Your task to perform on an android device: toggle location history Image 0: 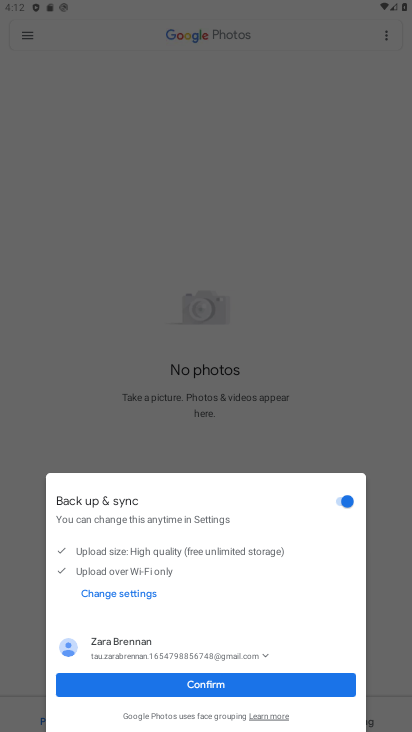
Step 0: press home button
Your task to perform on an android device: toggle location history Image 1: 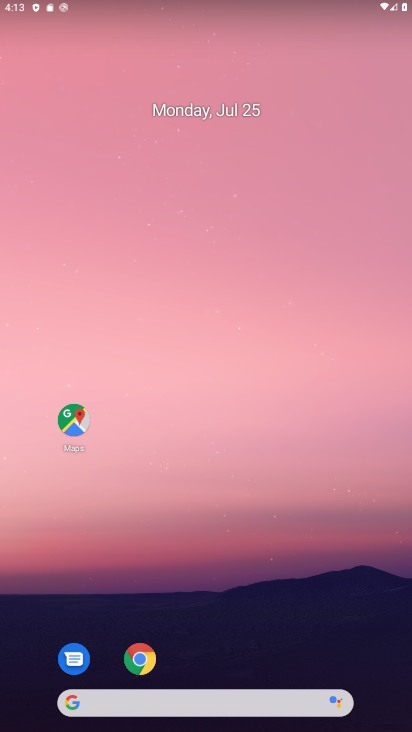
Step 1: drag from (182, 664) to (252, 8)
Your task to perform on an android device: toggle location history Image 2: 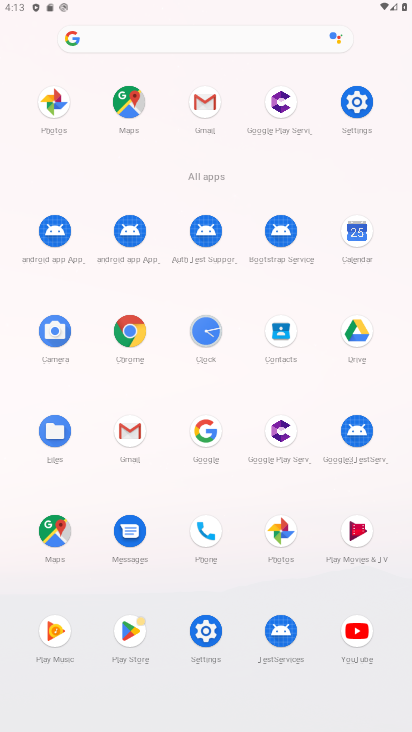
Step 2: click (357, 107)
Your task to perform on an android device: toggle location history Image 3: 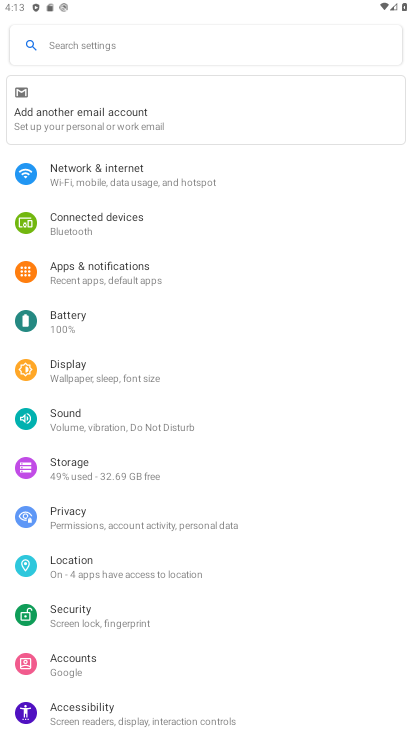
Step 3: click (96, 564)
Your task to perform on an android device: toggle location history Image 4: 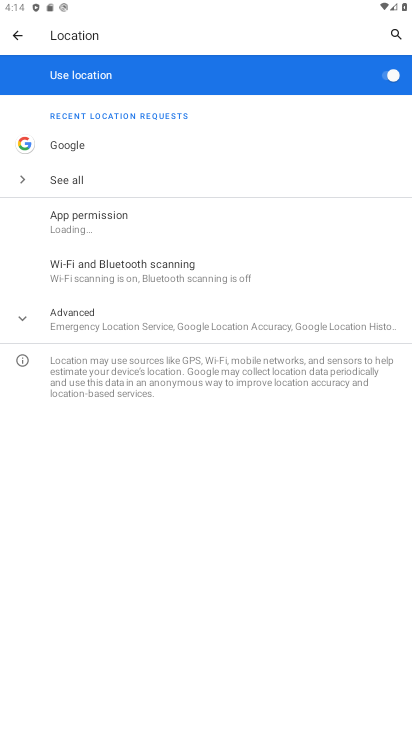
Step 4: click (131, 324)
Your task to perform on an android device: toggle location history Image 5: 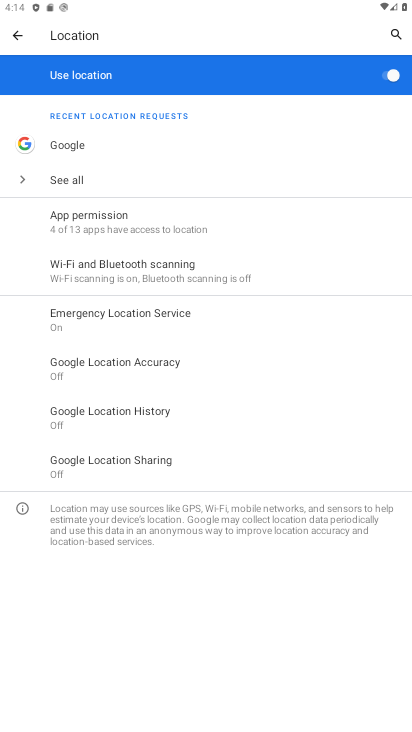
Step 5: click (91, 418)
Your task to perform on an android device: toggle location history Image 6: 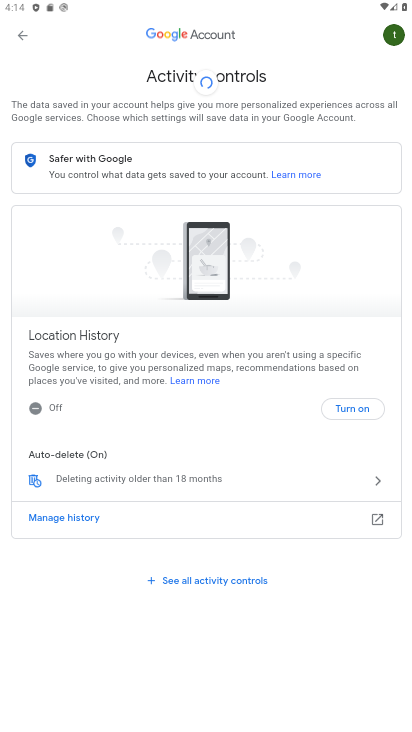
Step 6: click (367, 404)
Your task to perform on an android device: toggle location history Image 7: 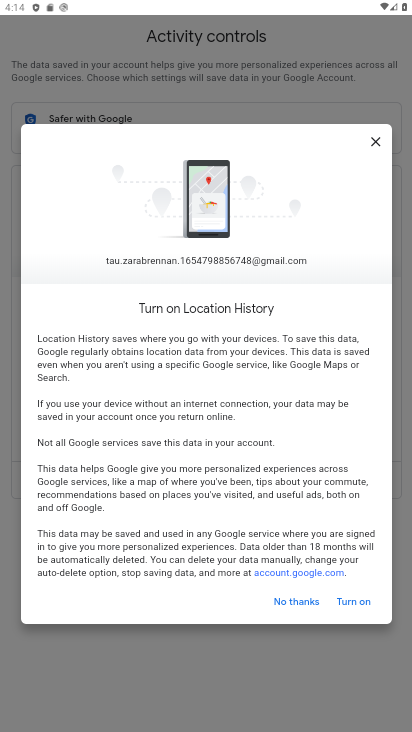
Step 7: click (348, 604)
Your task to perform on an android device: toggle location history Image 8: 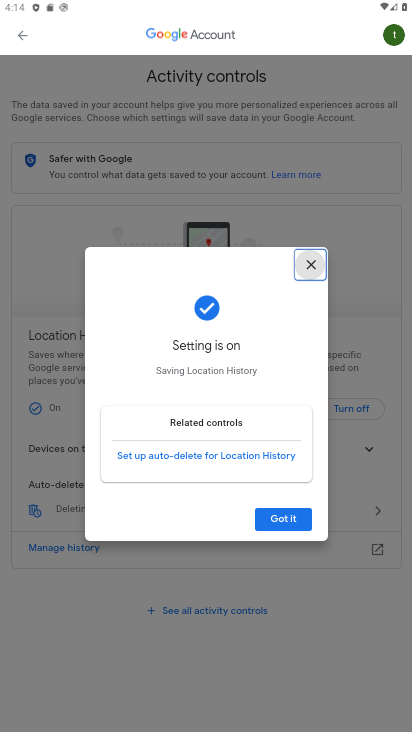
Step 8: click (273, 521)
Your task to perform on an android device: toggle location history Image 9: 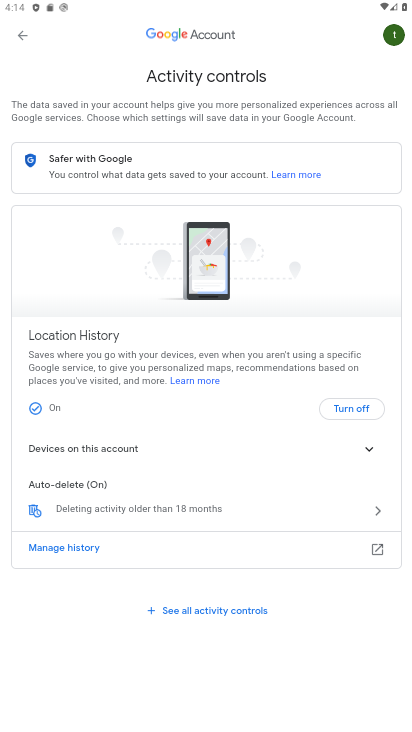
Step 9: task complete